Your task to perform on an android device: add a contact in the contacts app Image 0: 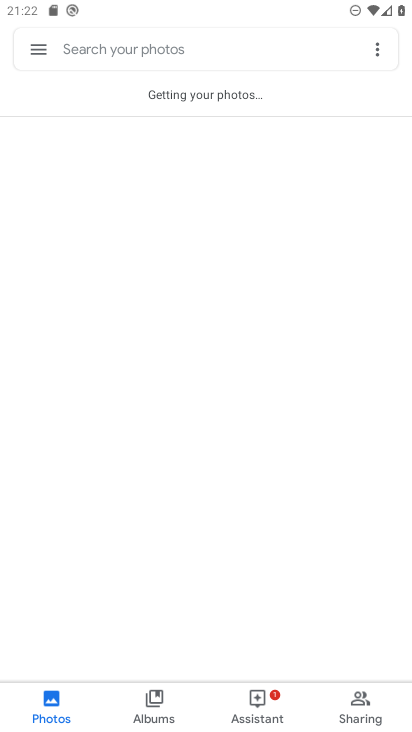
Step 0: drag from (268, 523) to (237, 16)
Your task to perform on an android device: add a contact in the contacts app Image 1: 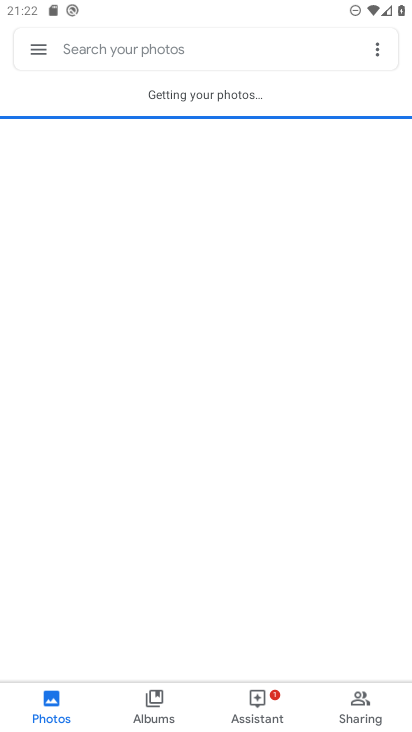
Step 1: press home button
Your task to perform on an android device: add a contact in the contacts app Image 2: 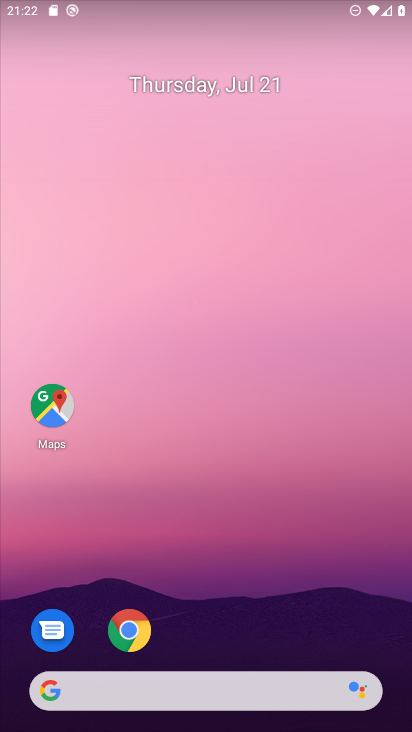
Step 2: drag from (256, 595) to (279, 76)
Your task to perform on an android device: add a contact in the contacts app Image 3: 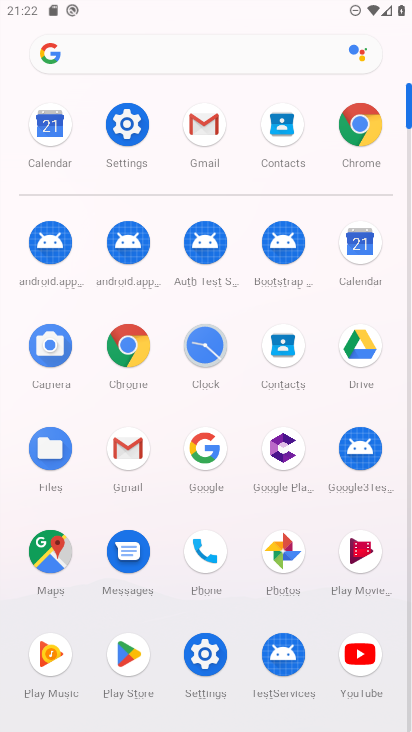
Step 3: click (291, 339)
Your task to perform on an android device: add a contact in the contacts app Image 4: 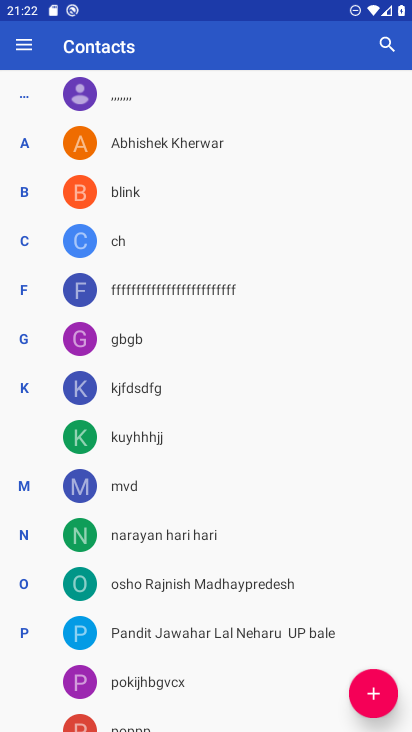
Step 4: click (375, 694)
Your task to perform on an android device: add a contact in the contacts app Image 5: 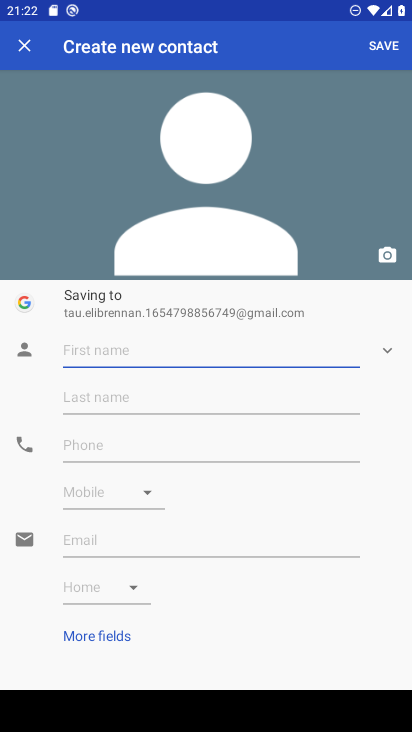
Step 5: click (206, 356)
Your task to perform on an android device: add a contact in the contacts app Image 6: 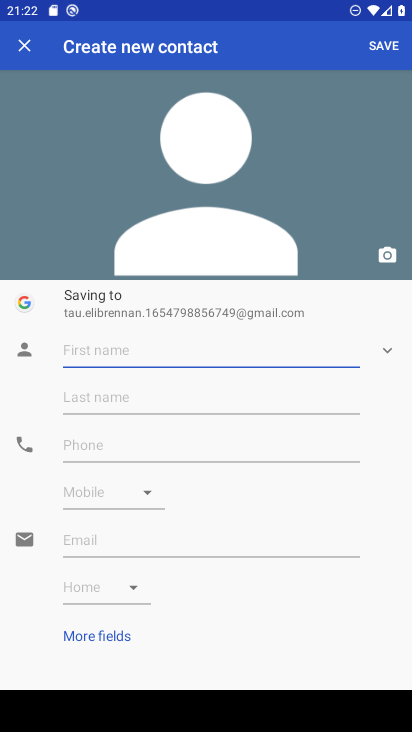
Step 6: type "lakshmi narayan"
Your task to perform on an android device: add a contact in the contacts app Image 7: 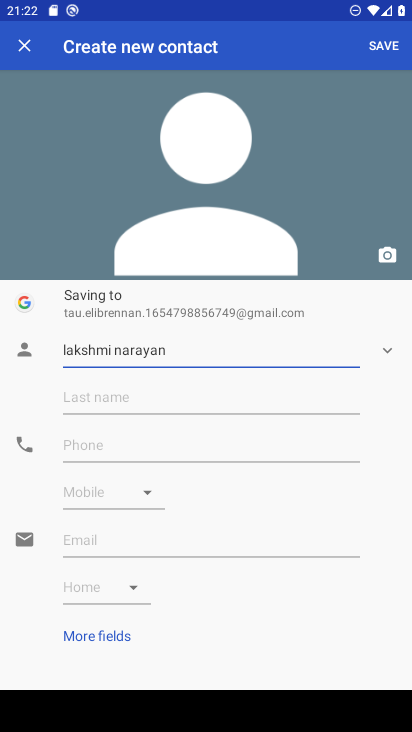
Step 7: click (387, 45)
Your task to perform on an android device: add a contact in the contacts app Image 8: 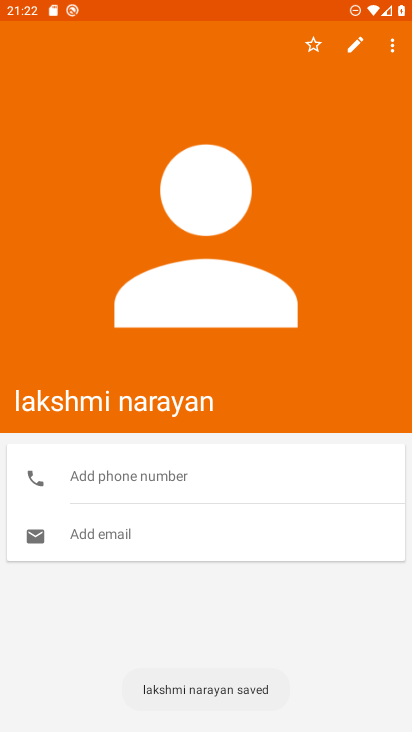
Step 8: task complete